Your task to perform on an android device: Open Google Chrome Image 0: 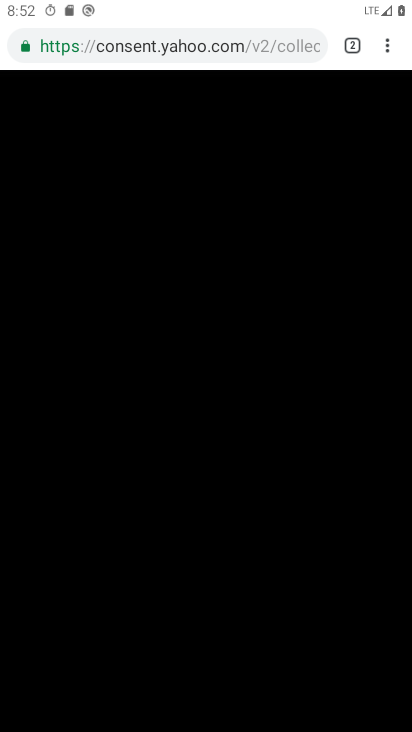
Step 0: press home button
Your task to perform on an android device: Open Google Chrome Image 1: 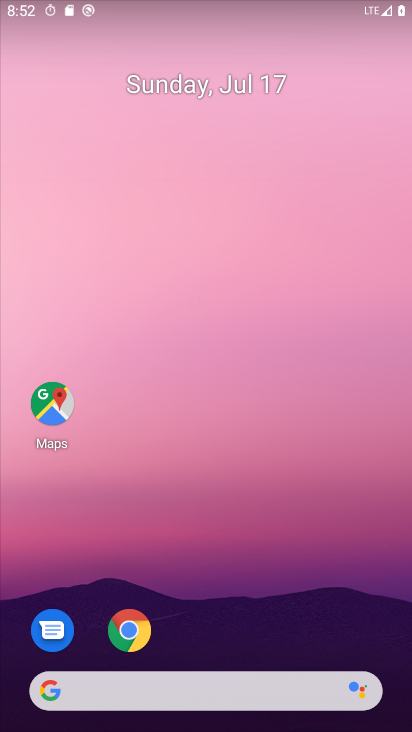
Step 1: click (137, 635)
Your task to perform on an android device: Open Google Chrome Image 2: 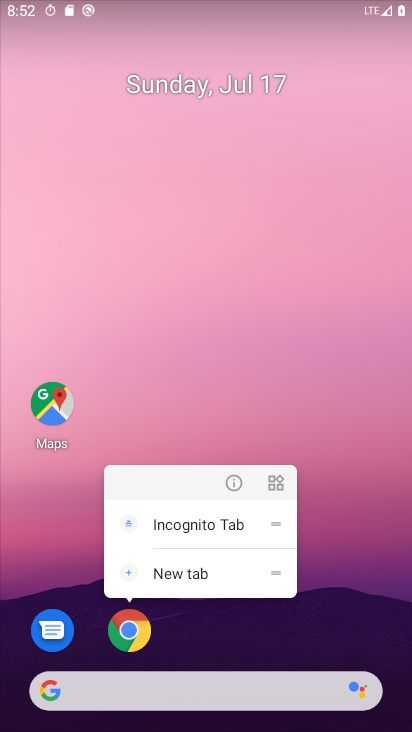
Step 2: click (131, 642)
Your task to perform on an android device: Open Google Chrome Image 3: 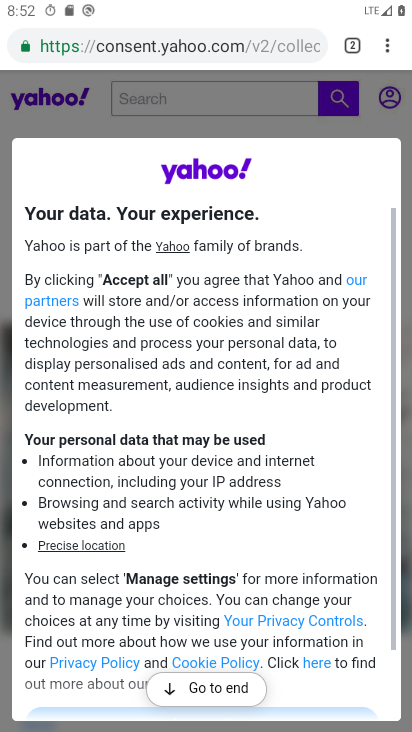
Step 3: task complete